Your task to perform on an android device: add a contact Image 0: 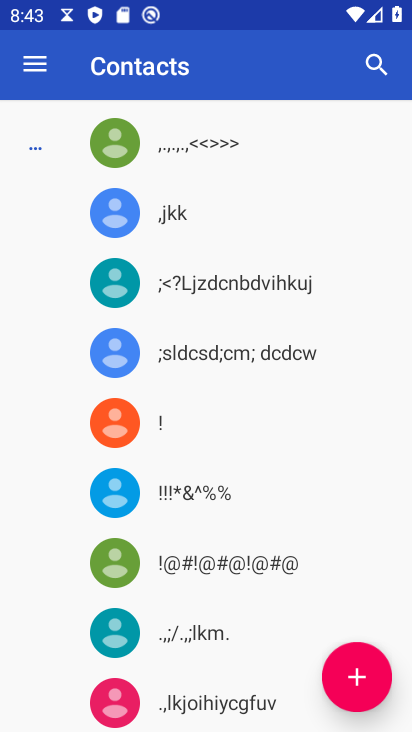
Step 0: click (343, 682)
Your task to perform on an android device: add a contact Image 1: 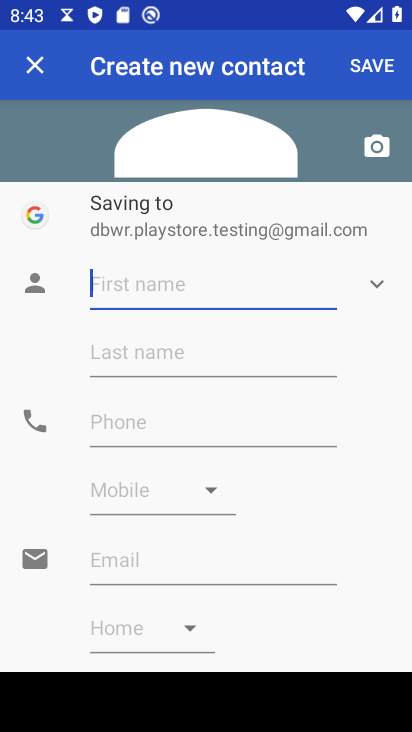
Step 1: type "sehzad"
Your task to perform on an android device: add a contact Image 2: 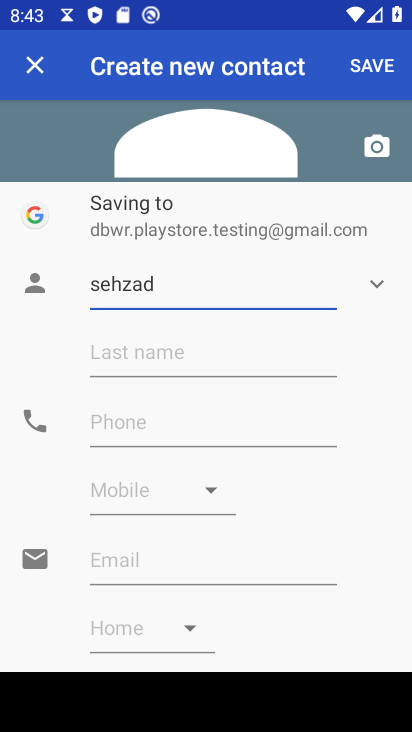
Step 2: click (377, 74)
Your task to perform on an android device: add a contact Image 3: 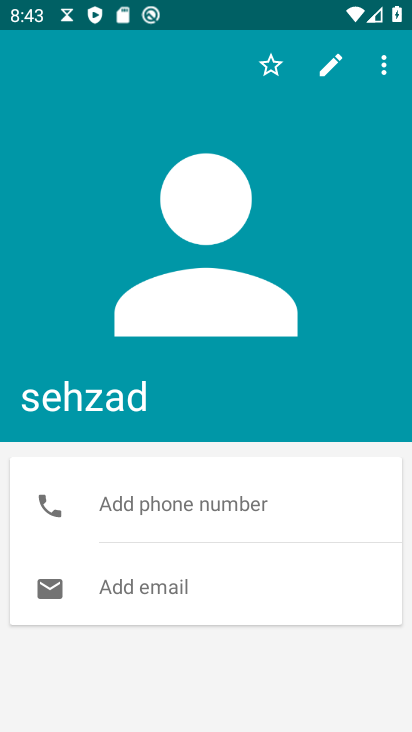
Step 3: task complete